Your task to perform on an android device: turn off location Image 0: 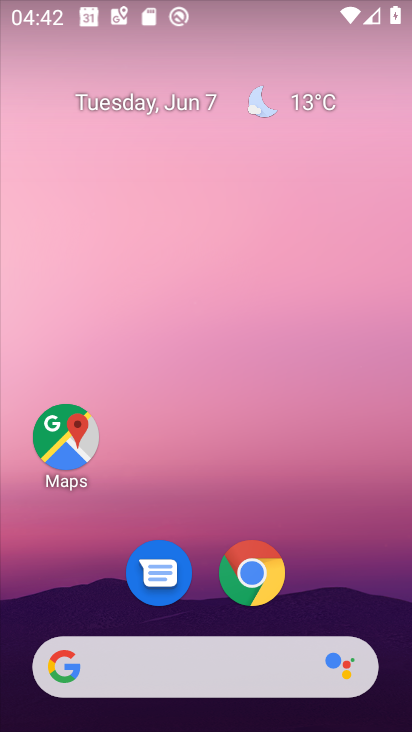
Step 0: drag from (317, 586) to (325, 10)
Your task to perform on an android device: turn off location Image 1: 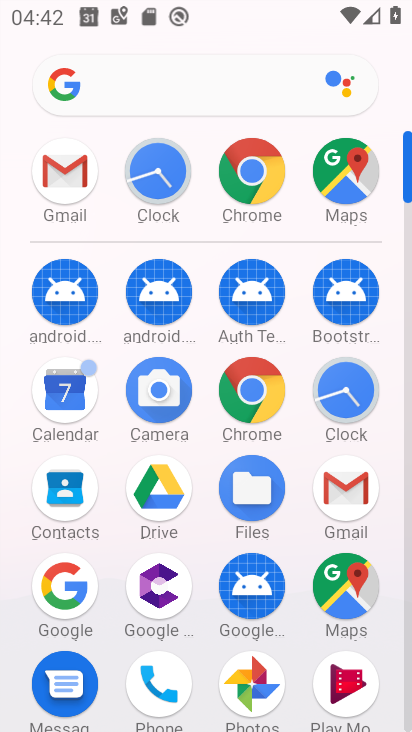
Step 1: drag from (199, 449) to (222, 84)
Your task to perform on an android device: turn off location Image 2: 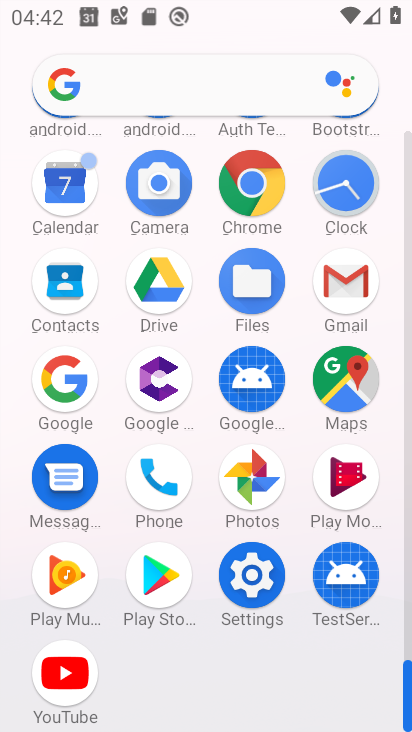
Step 2: click (243, 575)
Your task to perform on an android device: turn off location Image 3: 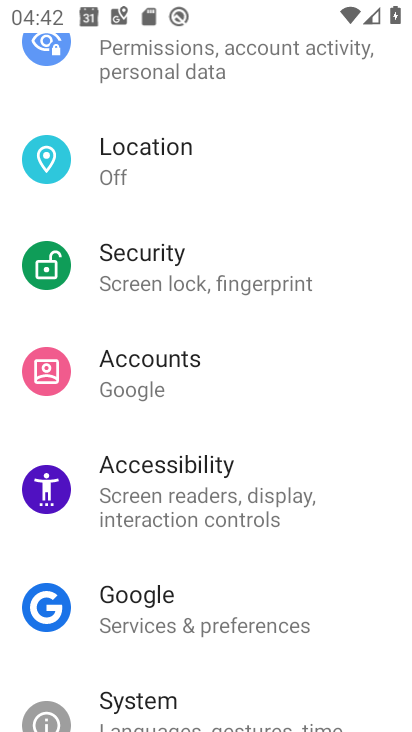
Step 3: drag from (310, 620) to (263, 155)
Your task to perform on an android device: turn off location Image 4: 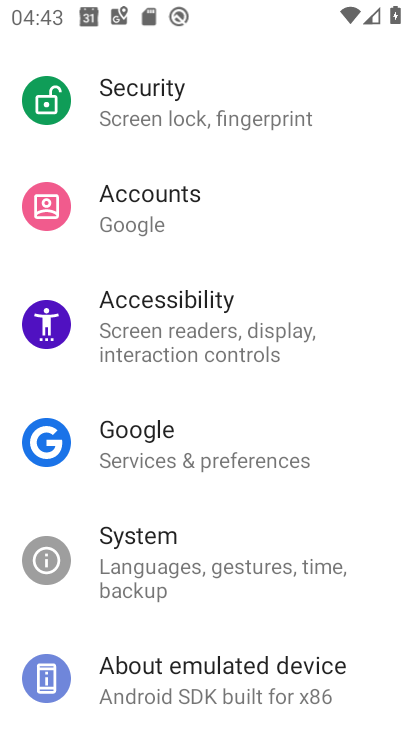
Step 4: drag from (233, 141) to (238, 544)
Your task to perform on an android device: turn off location Image 5: 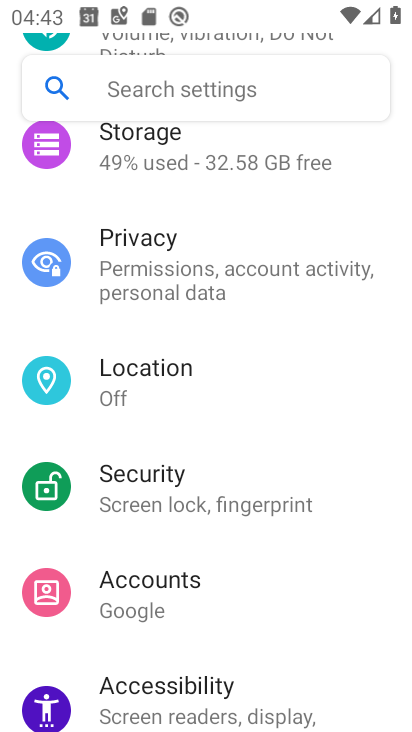
Step 5: drag from (251, 207) to (232, 490)
Your task to perform on an android device: turn off location Image 6: 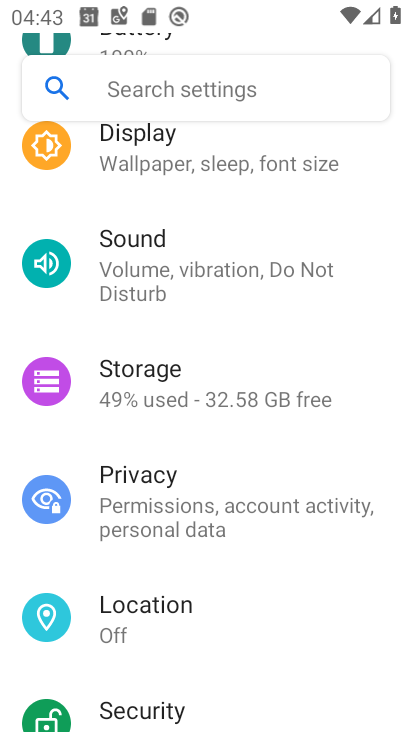
Step 6: drag from (244, 227) to (207, 579)
Your task to perform on an android device: turn off location Image 7: 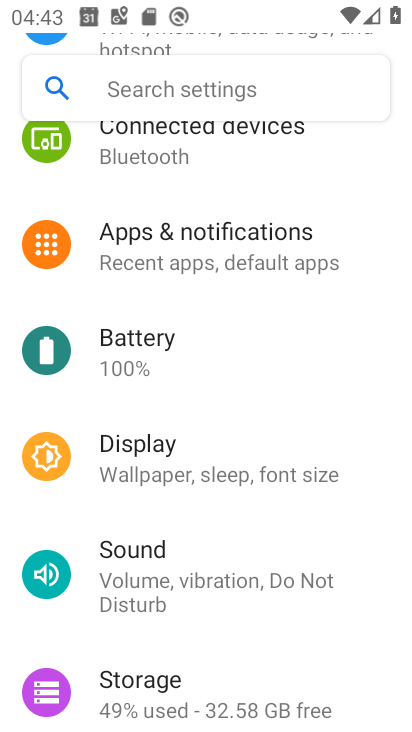
Step 7: drag from (252, 266) to (211, 533)
Your task to perform on an android device: turn off location Image 8: 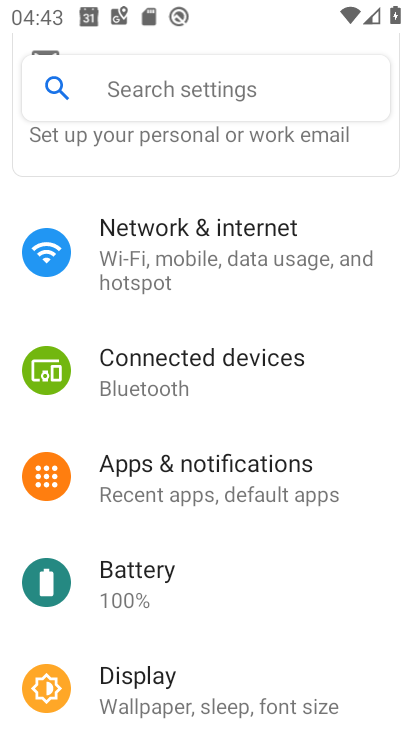
Step 8: drag from (279, 626) to (327, 212)
Your task to perform on an android device: turn off location Image 9: 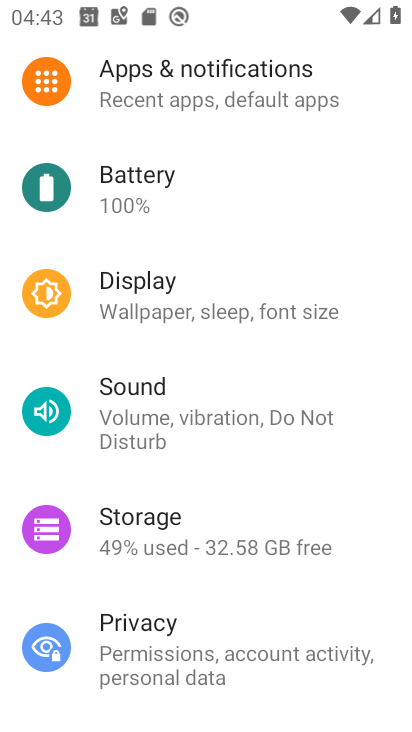
Step 9: drag from (235, 590) to (284, 137)
Your task to perform on an android device: turn off location Image 10: 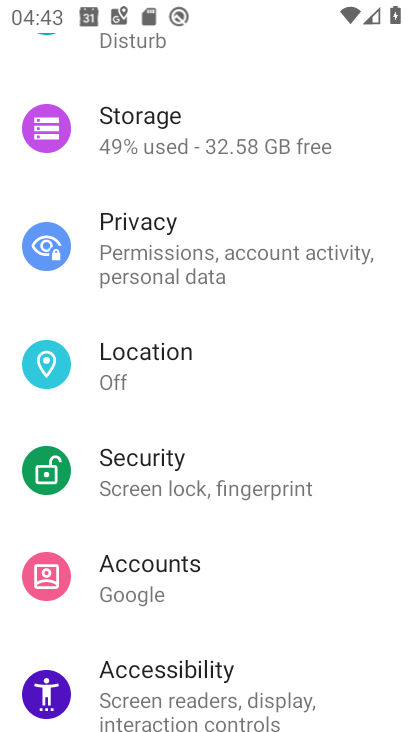
Step 10: click (165, 358)
Your task to perform on an android device: turn off location Image 11: 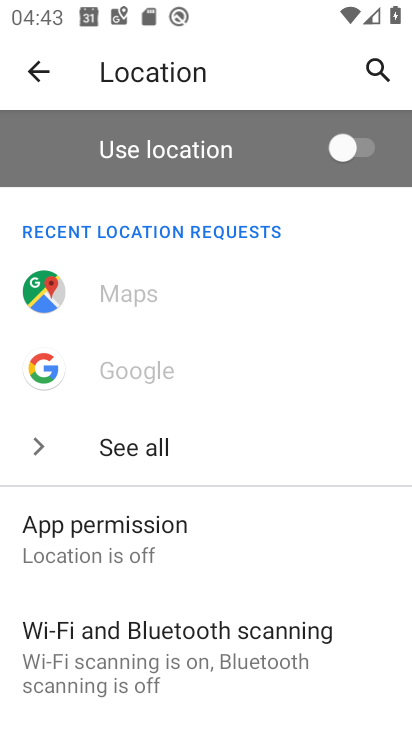
Step 11: task complete